Your task to perform on an android device: delete a single message in the gmail app Image 0: 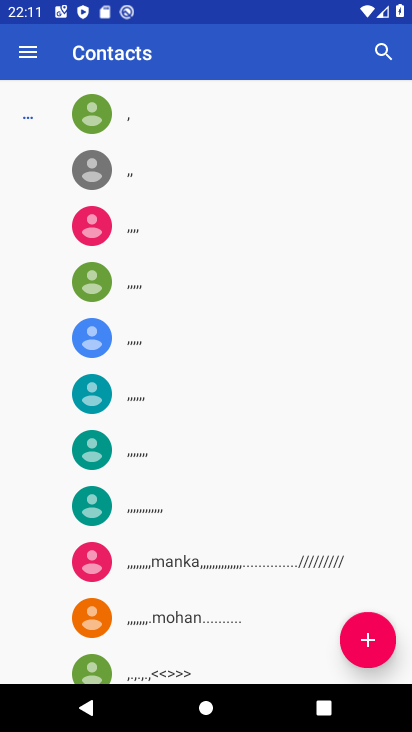
Step 0: press home button
Your task to perform on an android device: delete a single message in the gmail app Image 1: 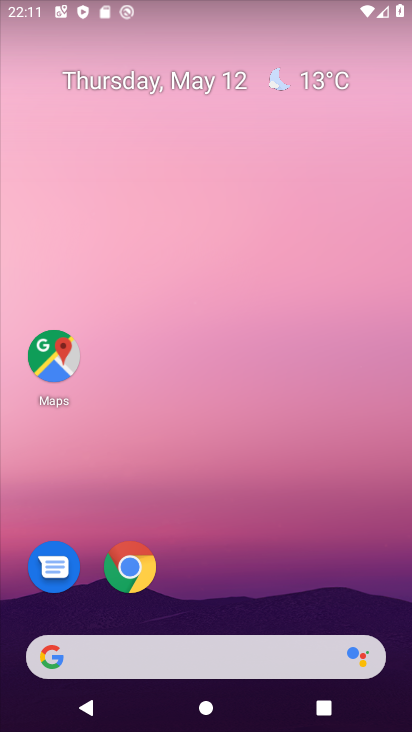
Step 1: drag from (212, 616) to (210, 98)
Your task to perform on an android device: delete a single message in the gmail app Image 2: 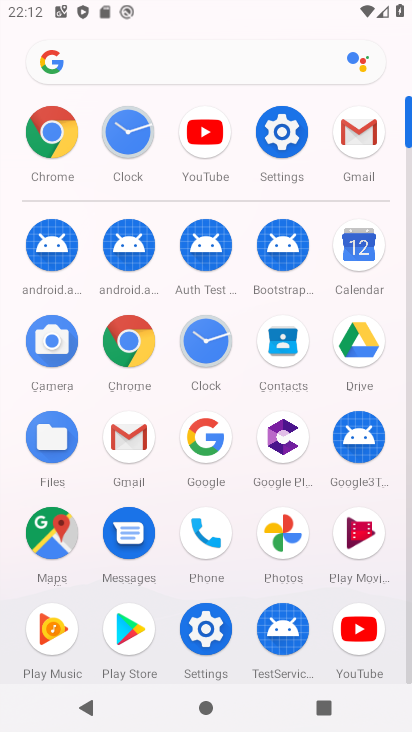
Step 2: click (362, 125)
Your task to perform on an android device: delete a single message in the gmail app Image 3: 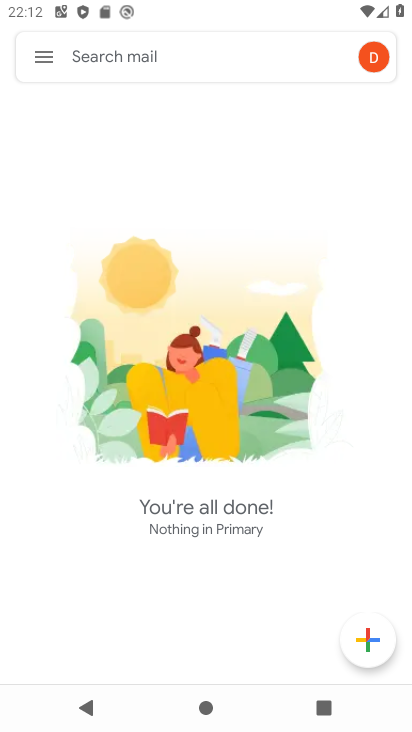
Step 3: task complete